Your task to perform on an android device: Go to Android settings Image 0: 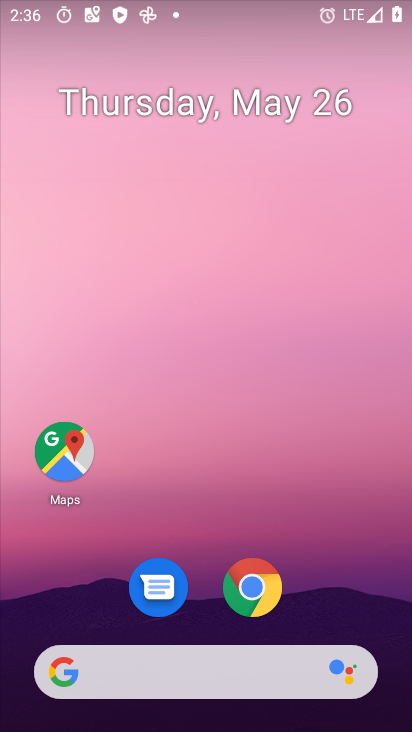
Step 0: drag from (367, 619) to (328, 85)
Your task to perform on an android device: Go to Android settings Image 1: 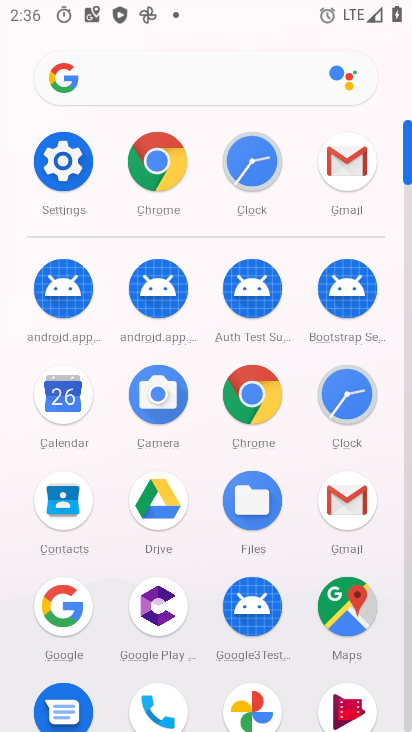
Step 1: click (58, 165)
Your task to perform on an android device: Go to Android settings Image 2: 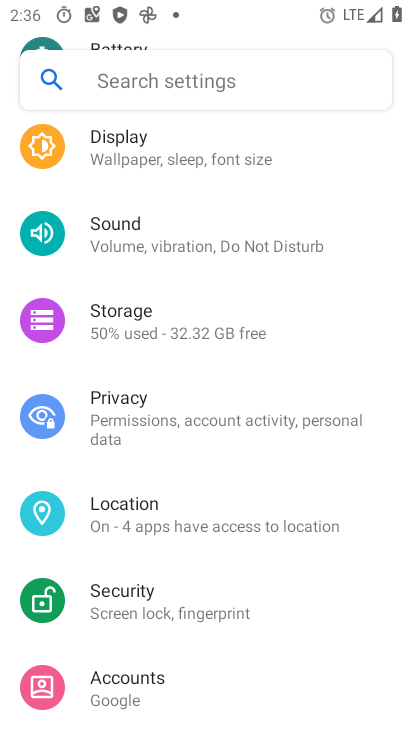
Step 2: drag from (363, 194) to (362, 315)
Your task to perform on an android device: Go to Android settings Image 3: 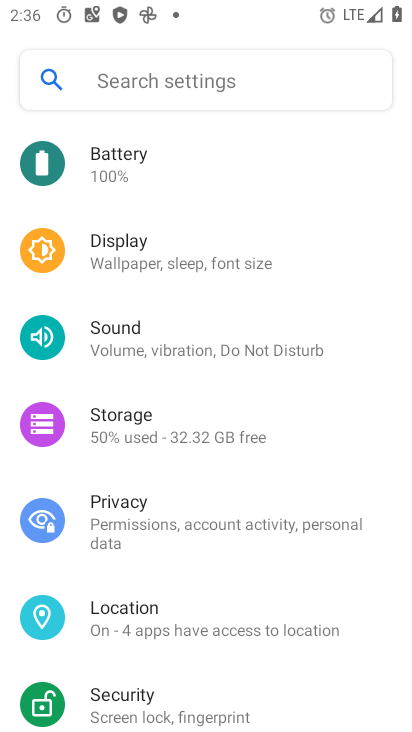
Step 3: drag from (349, 195) to (347, 344)
Your task to perform on an android device: Go to Android settings Image 4: 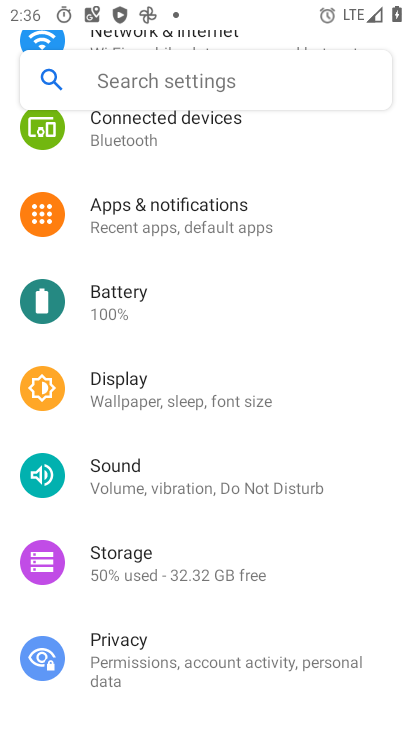
Step 4: drag from (345, 177) to (358, 283)
Your task to perform on an android device: Go to Android settings Image 5: 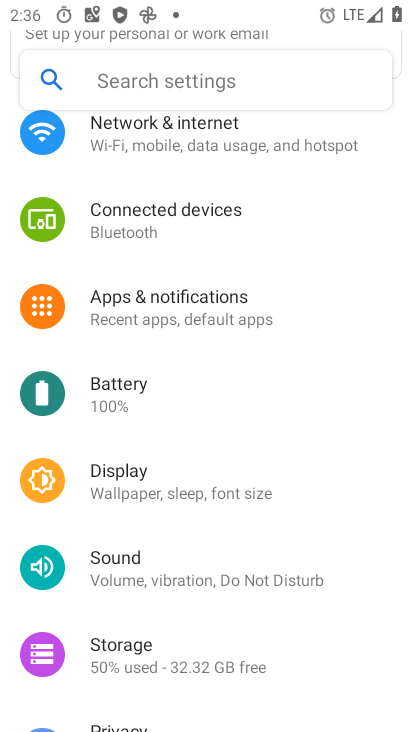
Step 5: drag from (356, 184) to (340, 295)
Your task to perform on an android device: Go to Android settings Image 6: 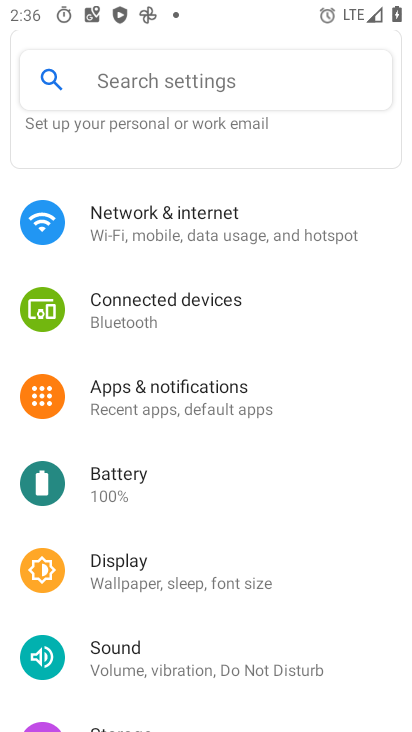
Step 6: drag from (332, 346) to (342, 281)
Your task to perform on an android device: Go to Android settings Image 7: 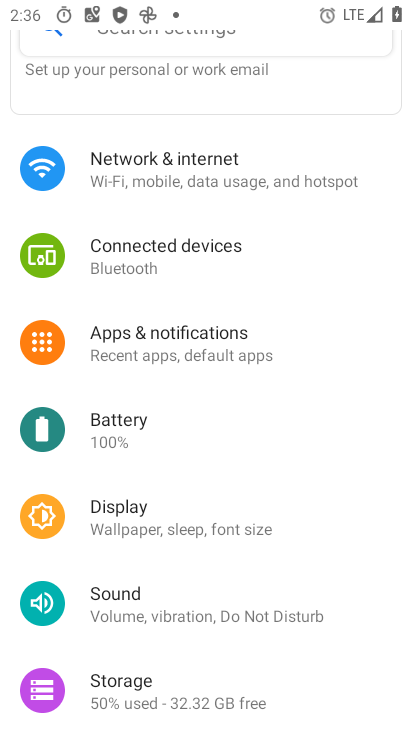
Step 7: drag from (338, 366) to (350, 274)
Your task to perform on an android device: Go to Android settings Image 8: 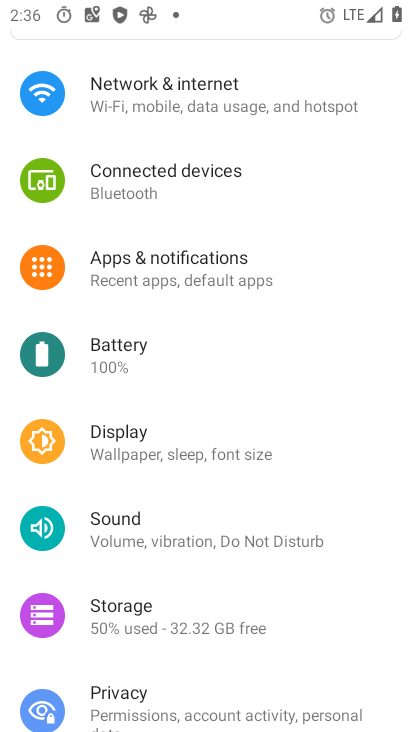
Step 8: drag from (334, 377) to (340, 269)
Your task to perform on an android device: Go to Android settings Image 9: 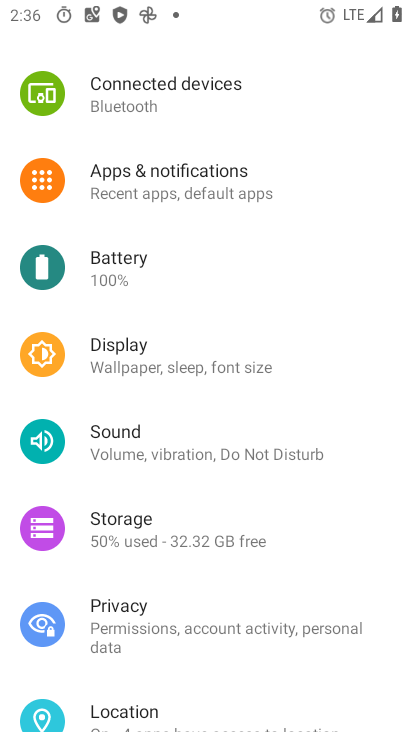
Step 9: drag from (342, 381) to (344, 263)
Your task to perform on an android device: Go to Android settings Image 10: 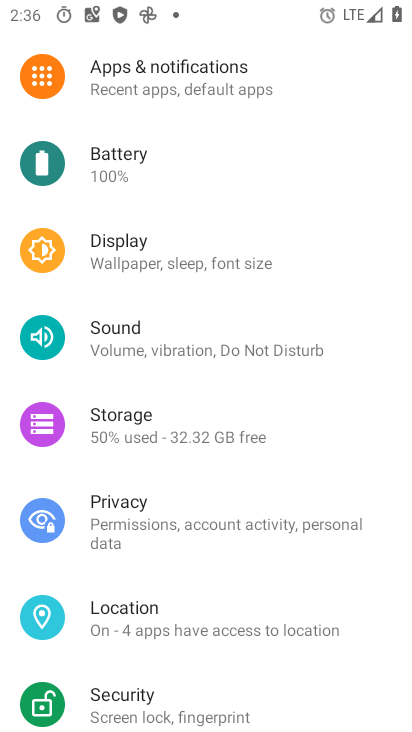
Step 10: drag from (339, 401) to (356, 310)
Your task to perform on an android device: Go to Android settings Image 11: 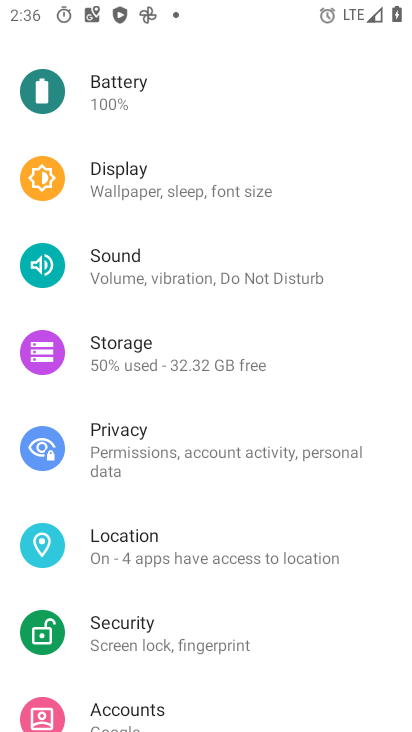
Step 11: drag from (353, 404) to (359, 315)
Your task to perform on an android device: Go to Android settings Image 12: 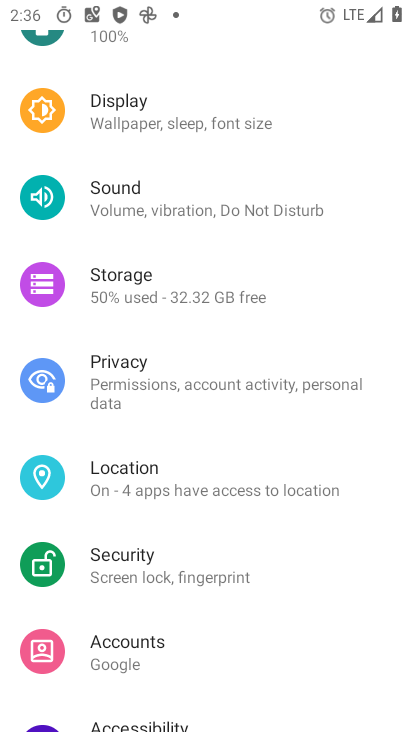
Step 12: drag from (353, 420) to (363, 326)
Your task to perform on an android device: Go to Android settings Image 13: 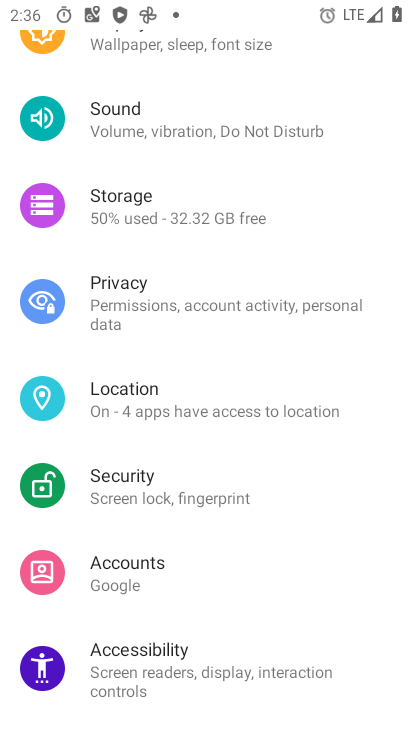
Step 13: drag from (370, 453) to (374, 344)
Your task to perform on an android device: Go to Android settings Image 14: 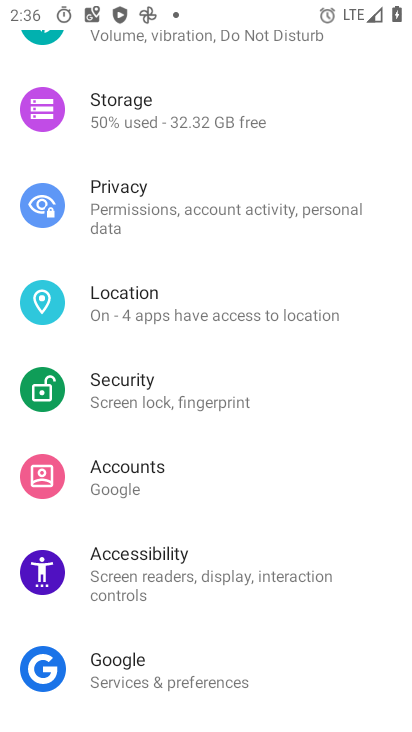
Step 14: drag from (361, 444) to (364, 346)
Your task to perform on an android device: Go to Android settings Image 15: 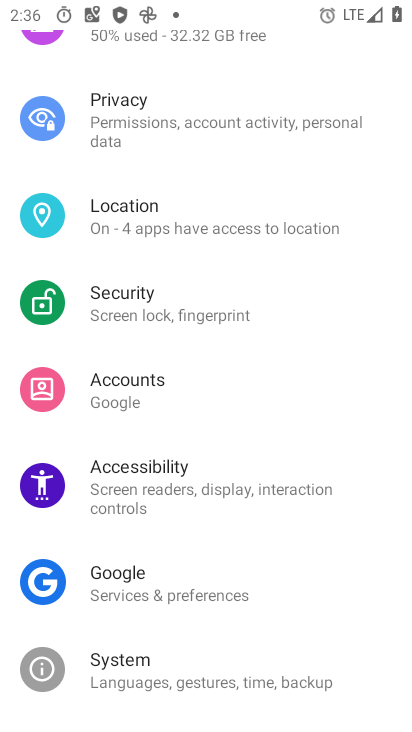
Step 15: drag from (368, 496) to (370, 317)
Your task to perform on an android device: Go to Android settings Image 16: 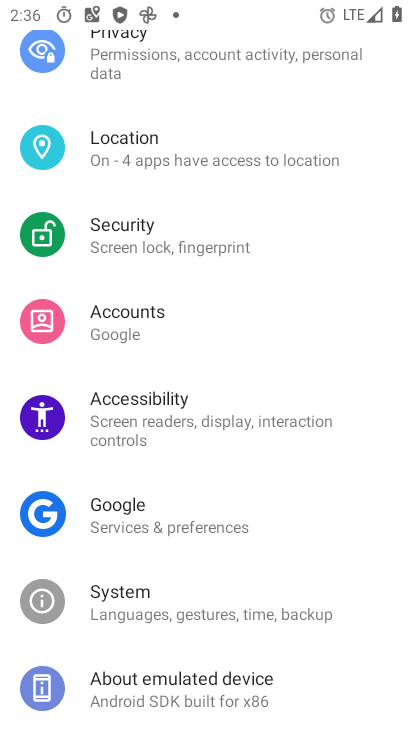
Step 16: drag from (352, 557) to (365, 402)
Your task to perform on an android device: Go to Android settings Image 17: 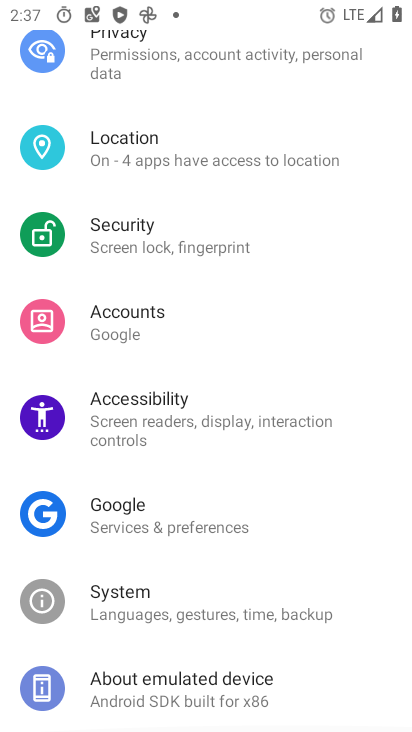
Step 17: click (287, 608)
Your task to perform on an android device: Go to Android settings Image 18: 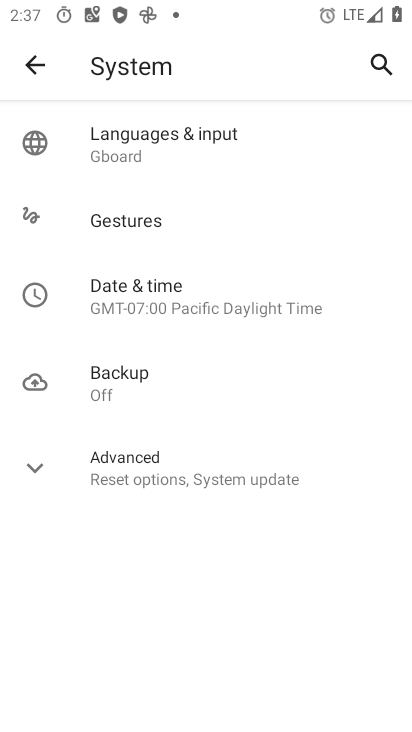
Step 18: click (273, 479)
Your task to perform on an android device: Go to Android settings Image 19: 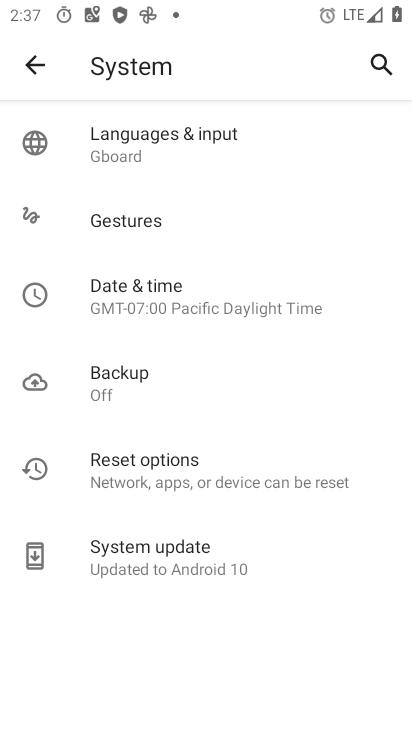
Step 19: task complete